Your task to perform on an android device: add a contact in the contacts app Image 0: 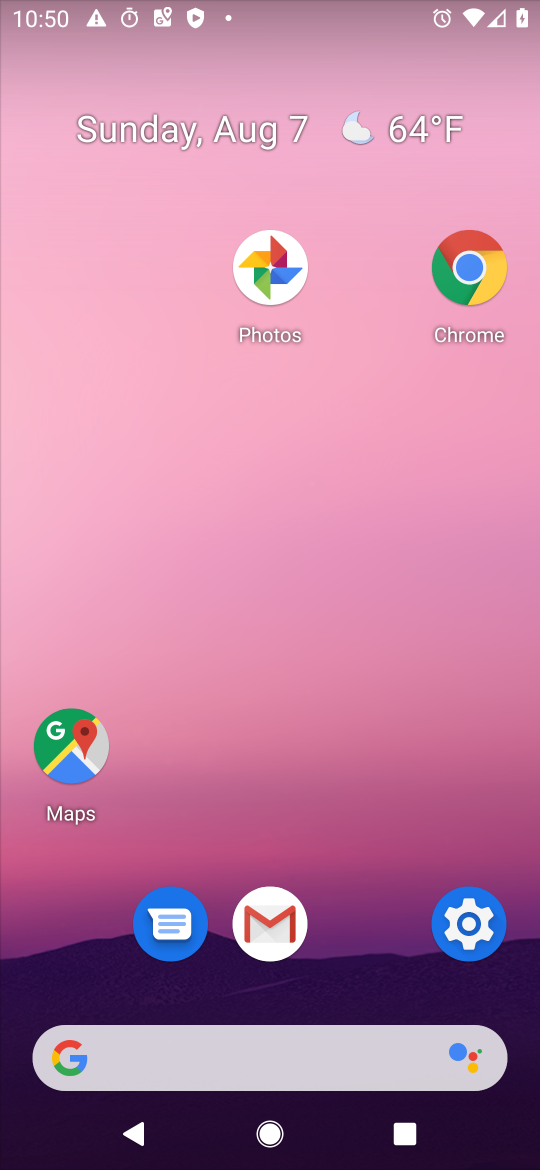
Step 0: drag from (352, 1105) to (442, 325)
Your task to perform on an android device: add a contact in the contacts app Image 1: 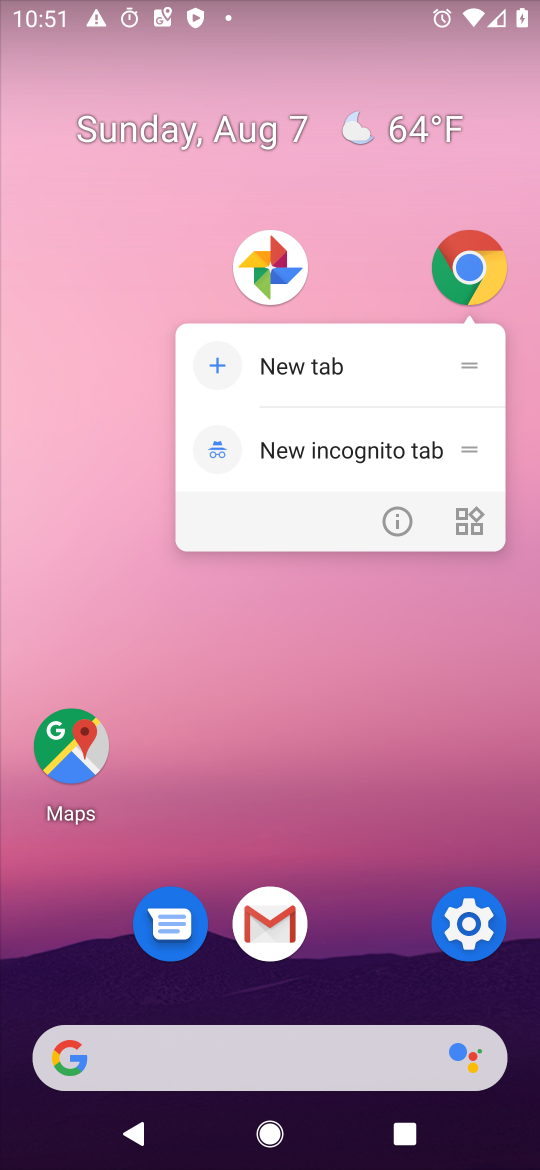
Step 1: click (376, 833)
Your task to perform on an android device: add a contact in the contacts app Image 2: 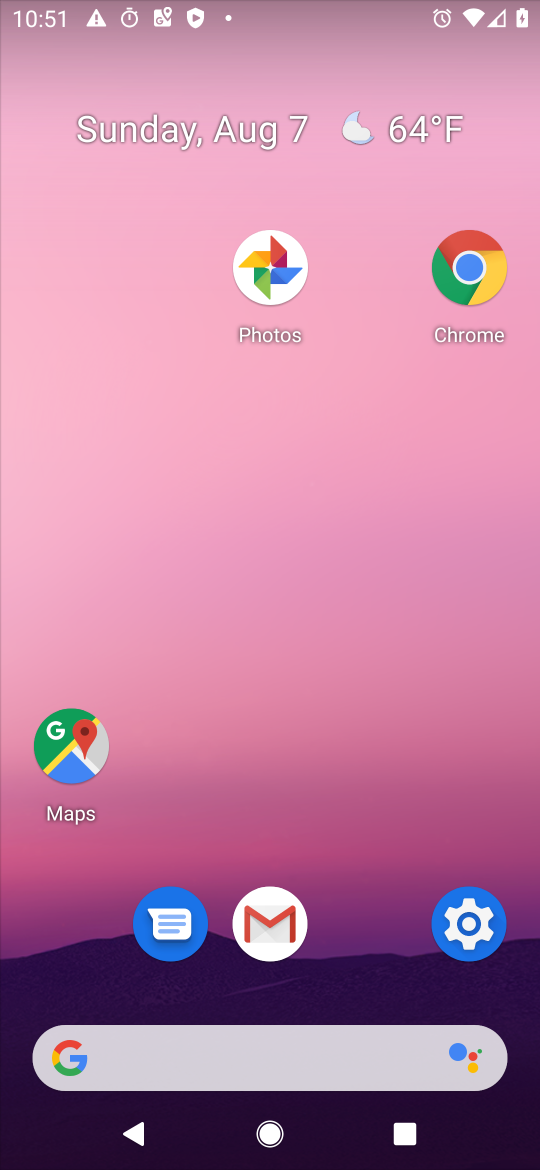
Step 2: drag from (352, 1106) to (283, 402)
Your task to perform on an android device: add a contact in the contacts app Image 3: 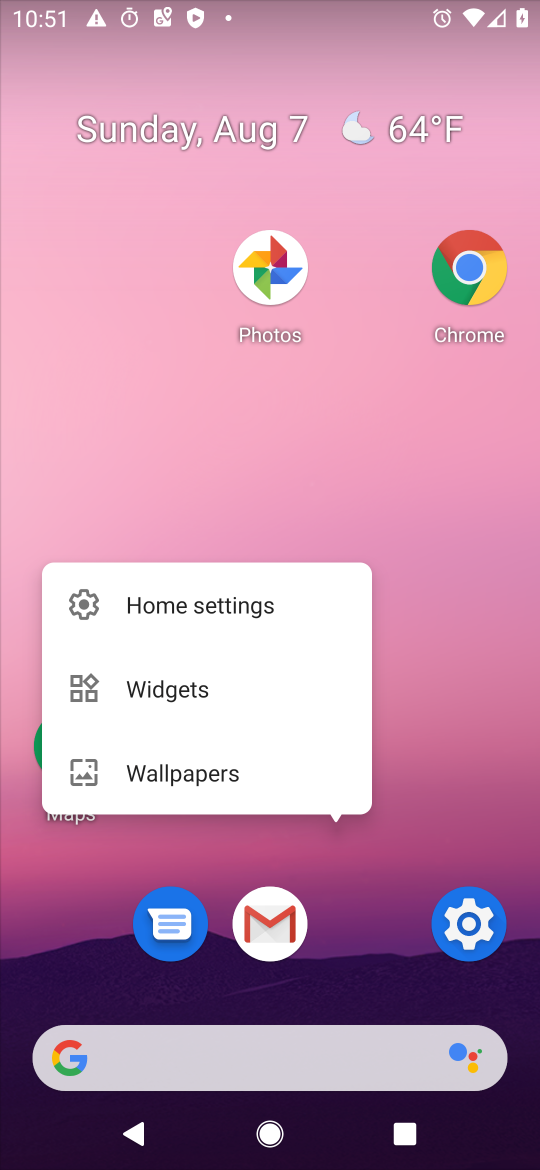
Step 3: click (326, 460)
Your task to perform on an android device: add a contact in the contacts app Image 4: 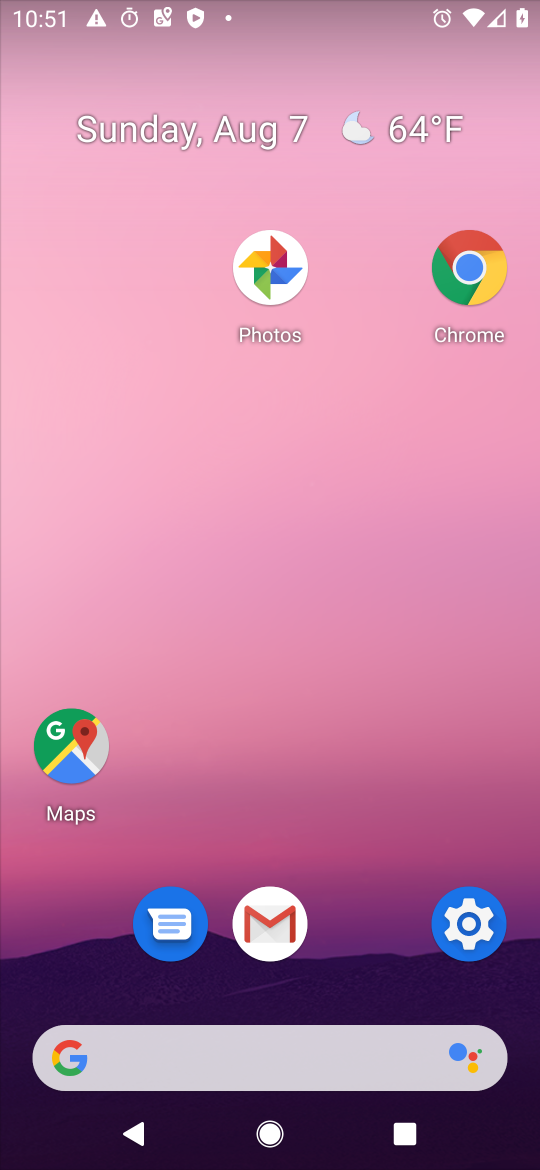
Step 4: drag from (341, 1090) to (329, 226)
Your task to perform on an android device: add a contact in the contacts app Image 5: 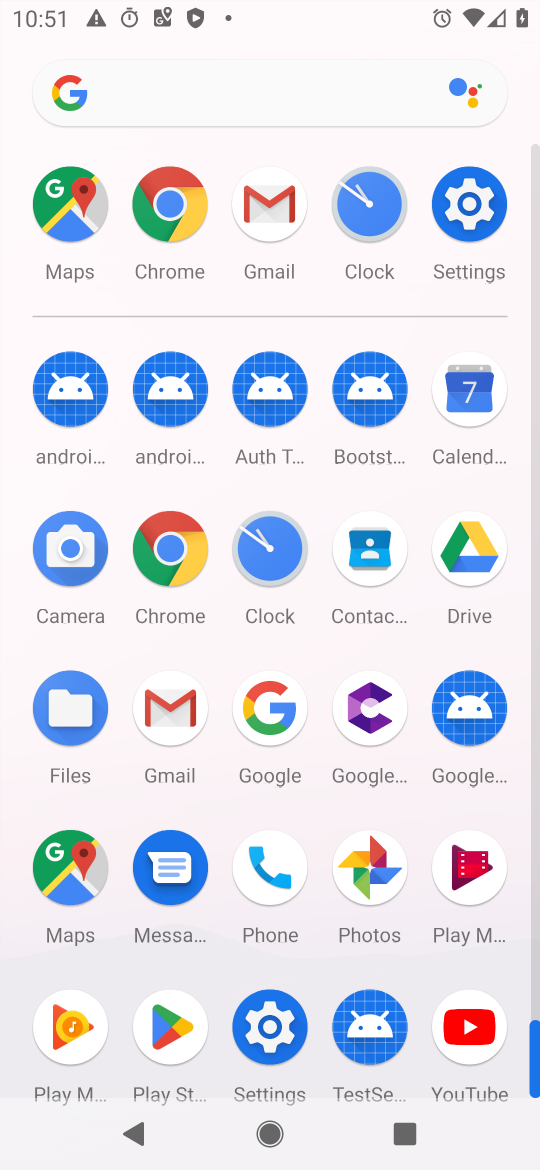
Step 5: click (249, 865)
Your task to perform on an android device: add a contact in the contacts app Image 6: 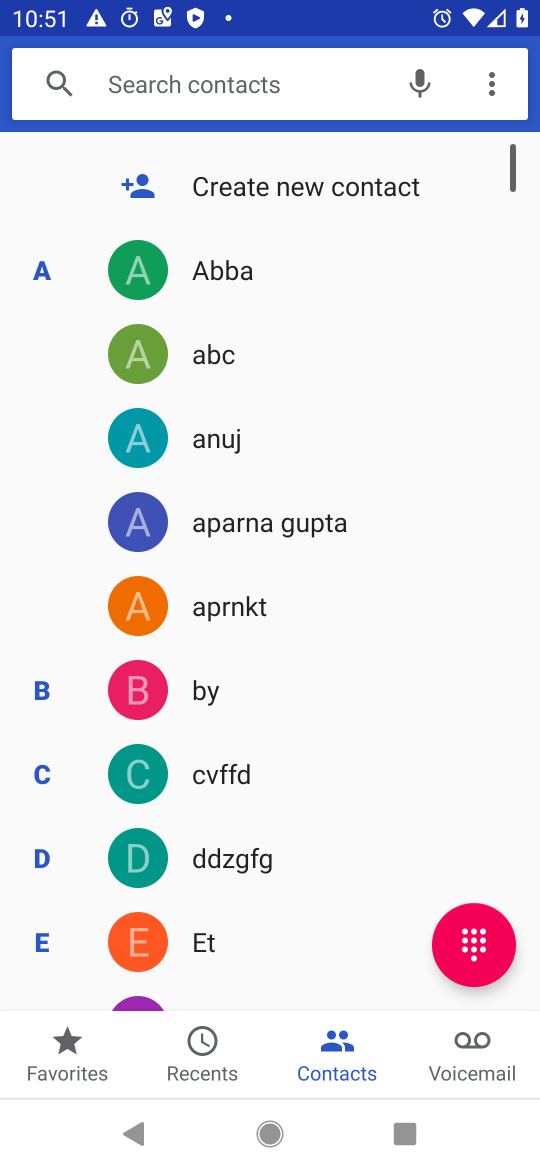
Step 6: click (241, 178)
Your task to perform on an android device: add a contact in the contacts app Image 7: 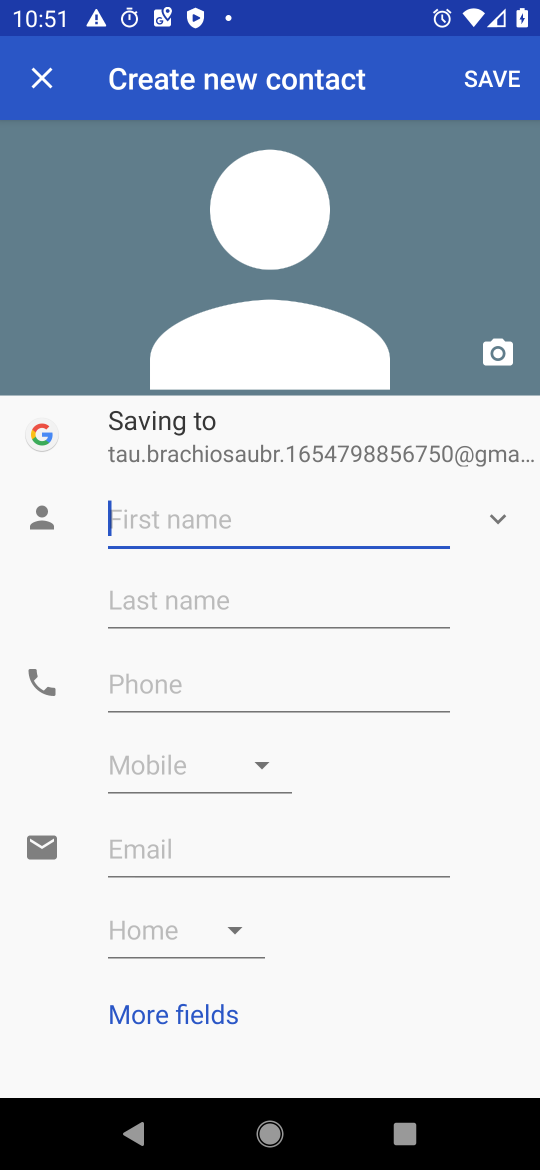
Step 7: click (180, 537)
Your task to perform on an android device: add a contact in the contacts app Image 8: 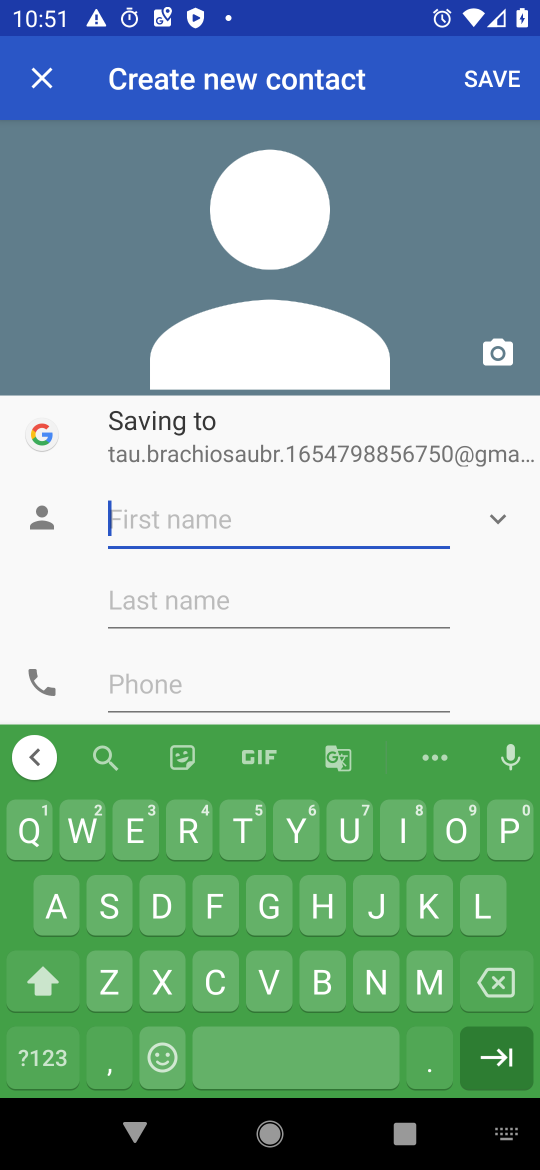
Step 8: click (276, 987)
Your task to perform on an android device: add a contact in the contacts app Image 9: 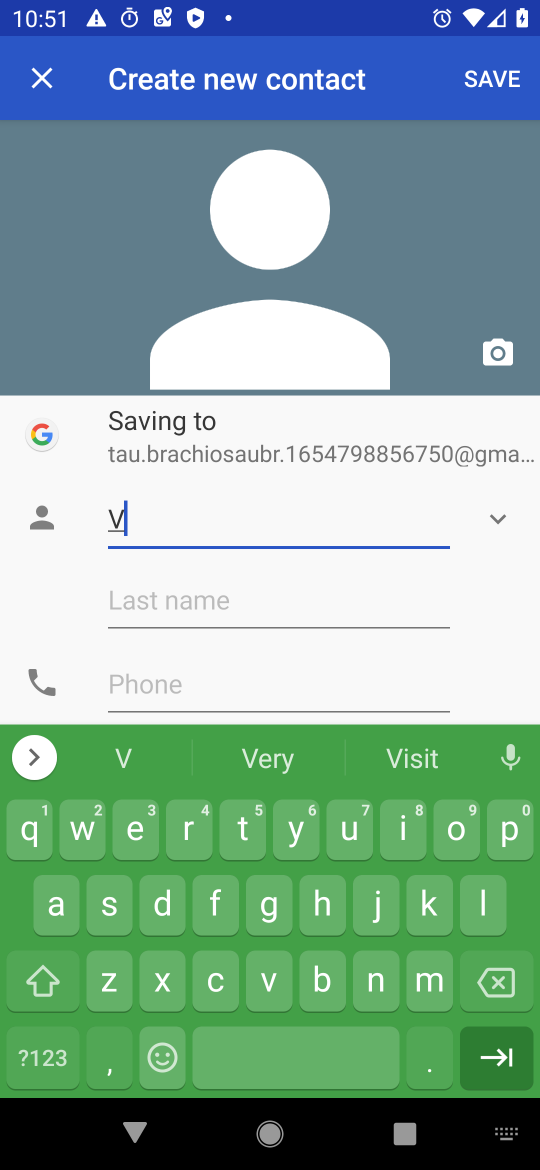
Step 9: click (375, 897)
Your task to perform on an android device: add a contact in the contacts app Image 10: 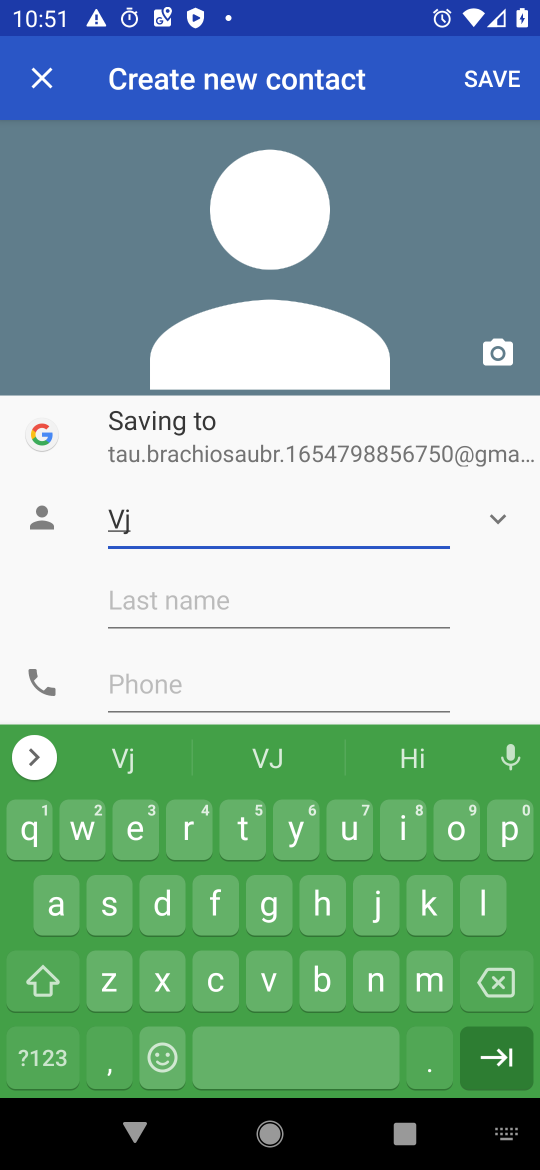
Step 10: click (154, 682)
Your task to perform on an android device: add a contact in the contacts app Image 11: 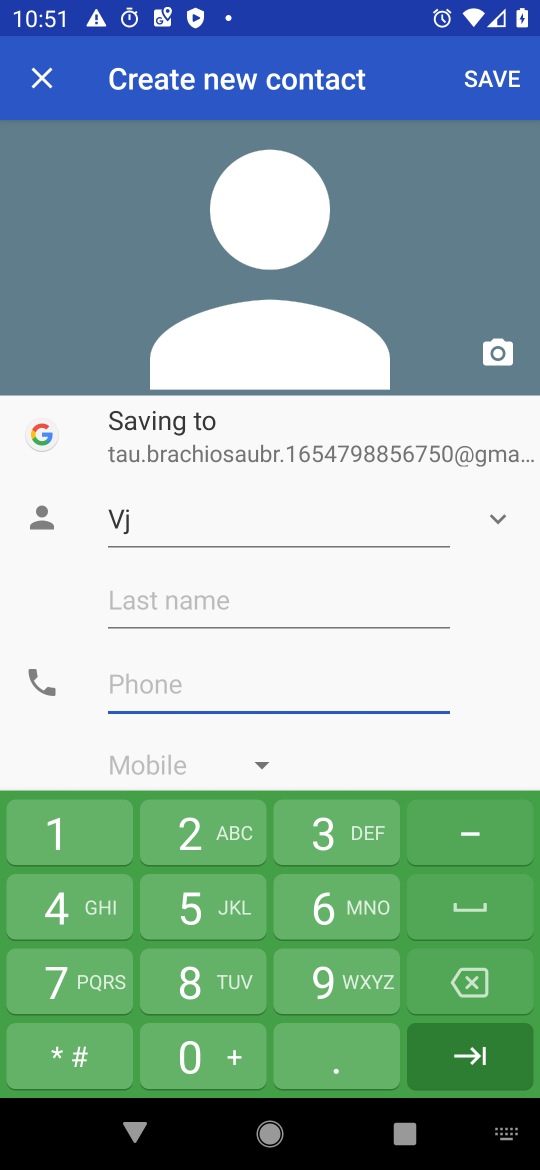
Step 11: click (312, 967)
Your task to perform on an android device: add a contact in the contacts app Image 12: 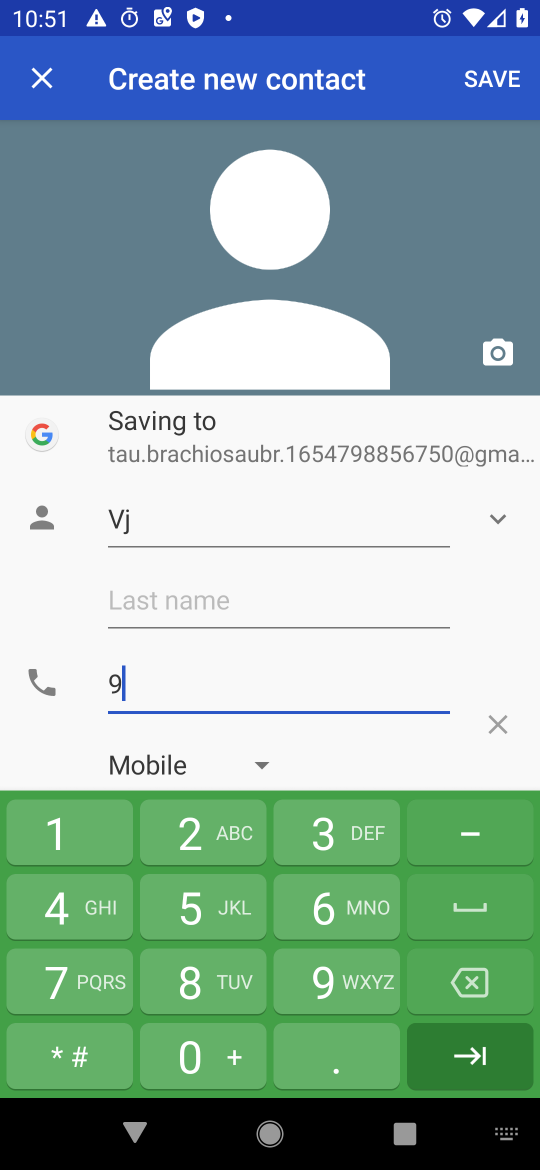
Step 12: click (194, 904)
Your task to perform on an android device: add a contact in the contacts app Image 13: 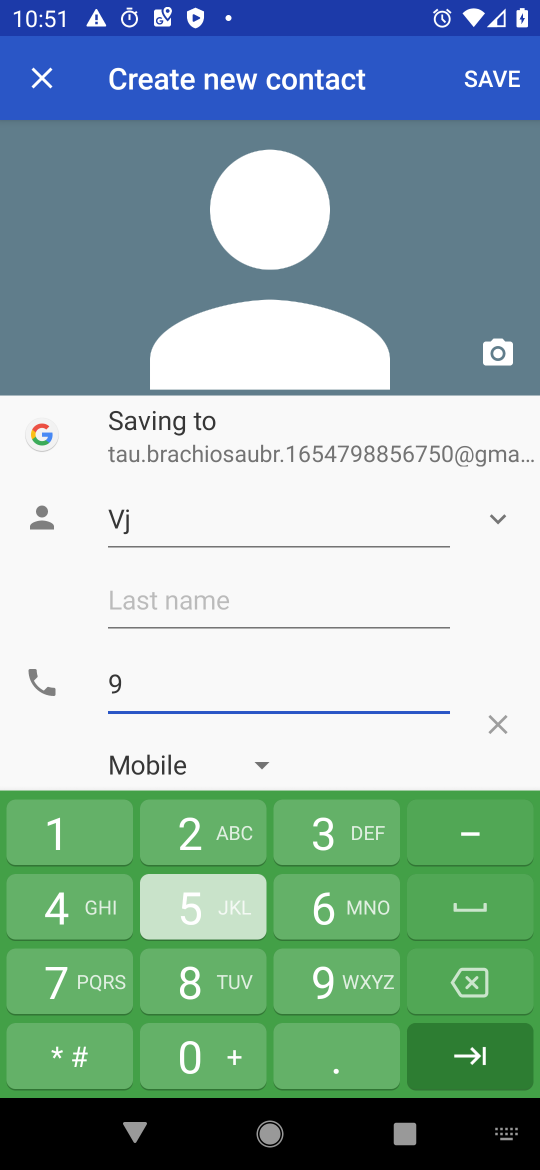
Step 13: click (48, 948)
Your task to perform on an android device: add a contact in the contacts app Image 14: 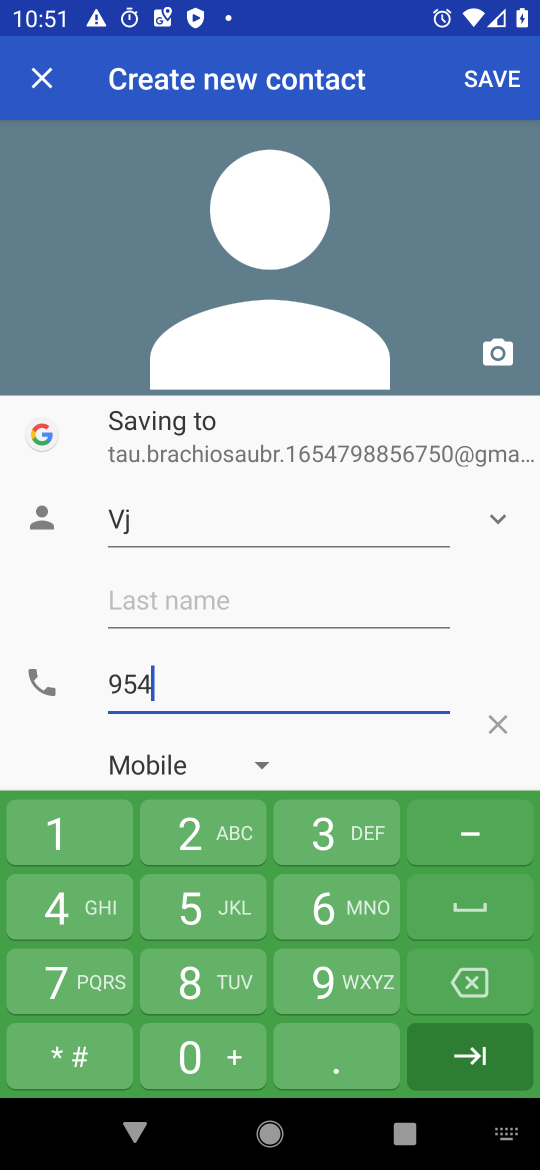
Step 14: click (146, 860)
Your task to perform on an android device: add a contact in the contacts app Image 15: 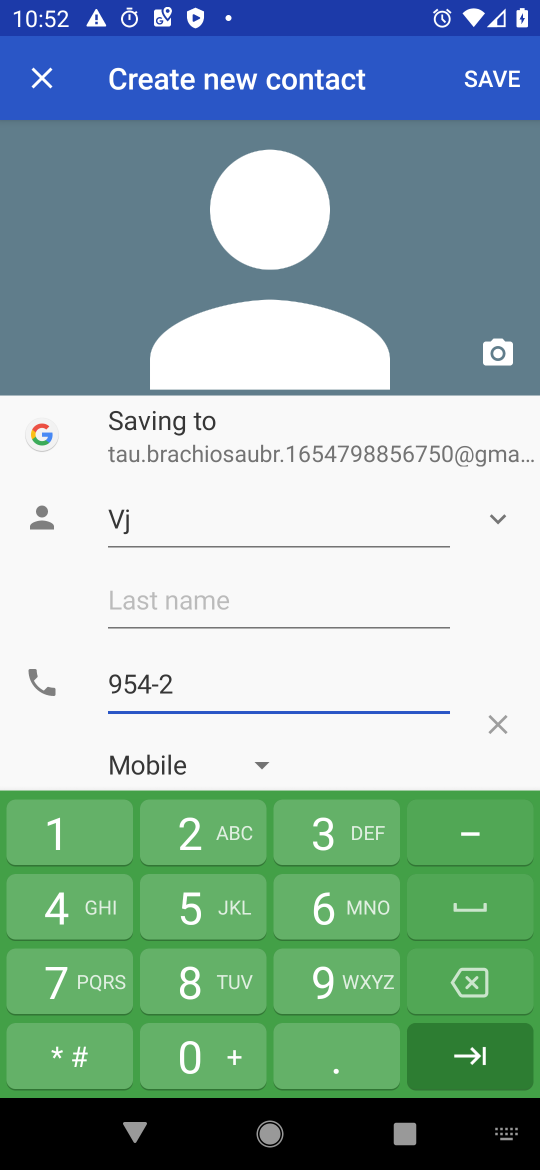
Step 15: click (253, 911)
Your task to perform on an android device: add a contact in the contacts app Image 16: 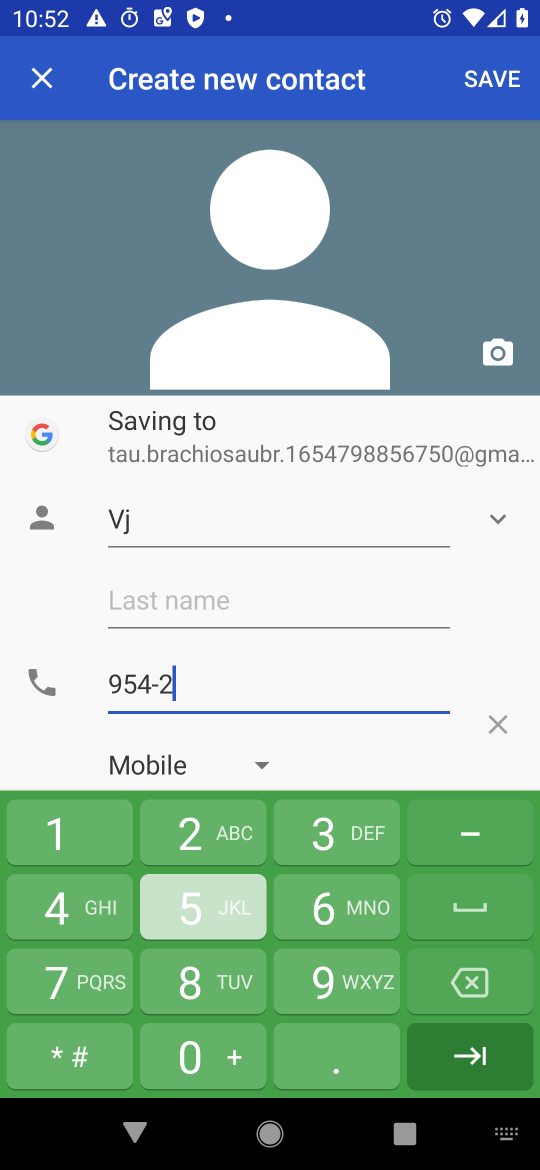
Step 16: click (253, 911)
Your task to perform on an android device: add a contact in the contacts app Image 17: 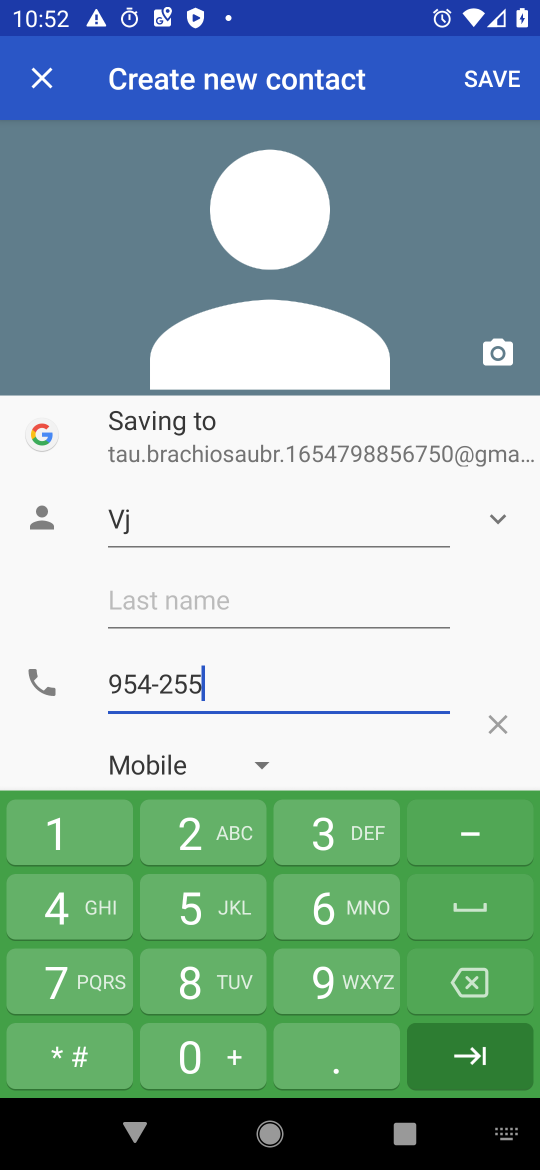
Step 17: click (253, 911)
Your task to perform on an android device: add a contact in the contacts app Image 18: 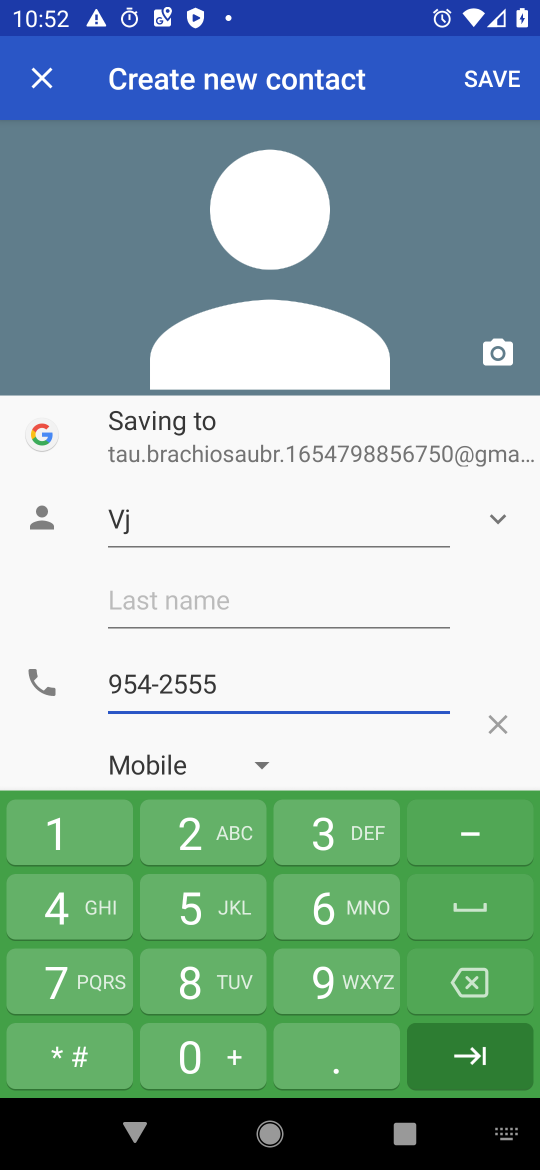
Step 18: click (358, 902)
Your task to perform on an android device: add a contact in the contacts app Image 19: 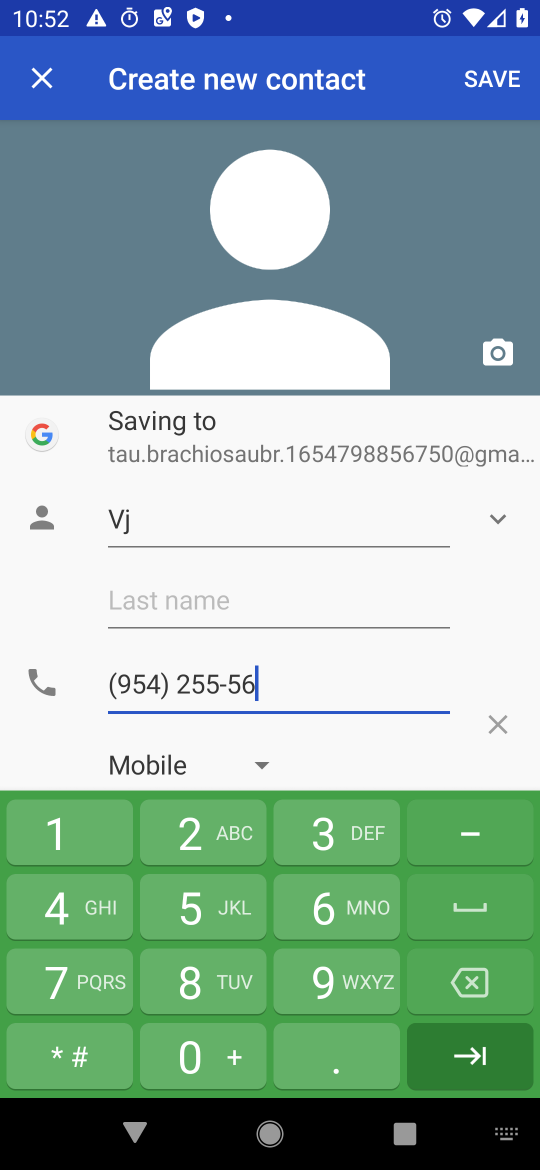
Step 19: click (108, 894)
Your task to perform on an android device: add a contact in the contacts app Image 20: 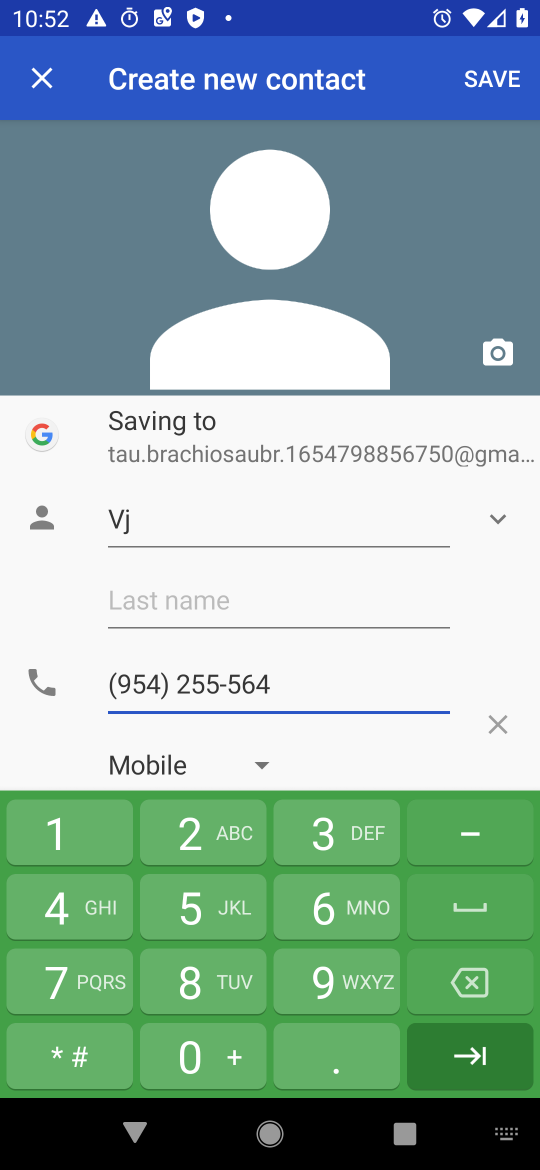
Step 20: click (165, 850)
Your task to perform on an android device: add a contact in the contacts app Image 21: 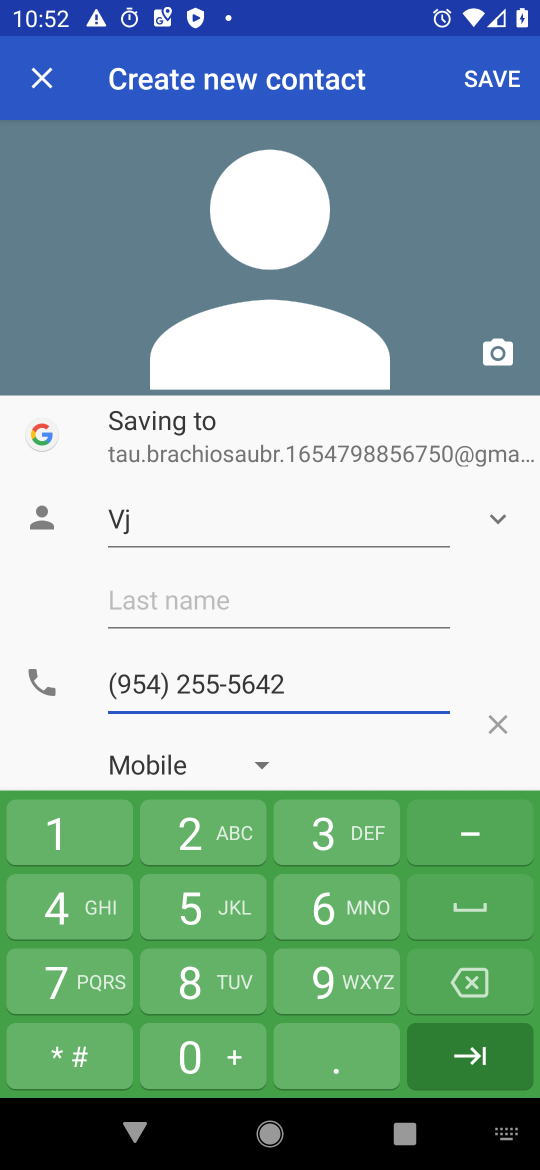
Step 21: click (490, 93)
Your task to perform on an android device: add a contact in the contacts app Image 22: 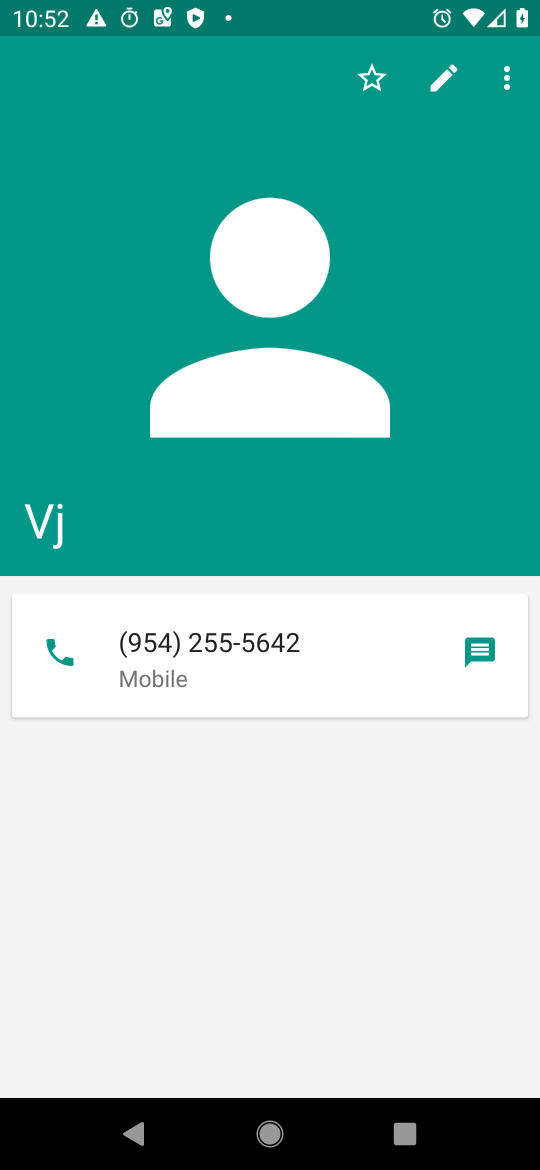
Step 22: task complete